Your task to perform on an android device: turn on sleep mode Image 0: 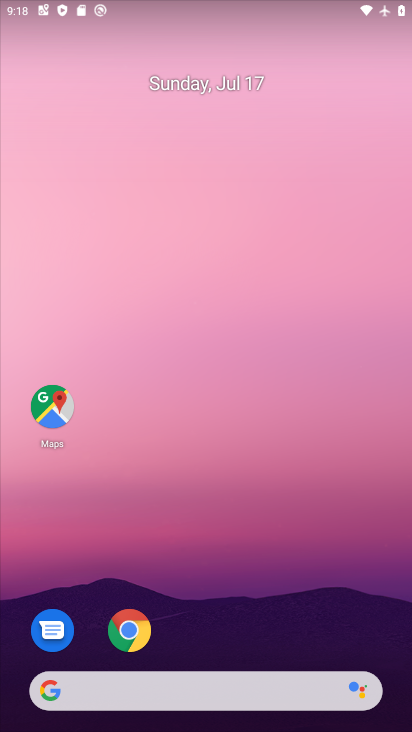
Step 0: drag from (287, 638) to (252, 164)
Your task to perform on an android device: turn on sleep mode Image 1: 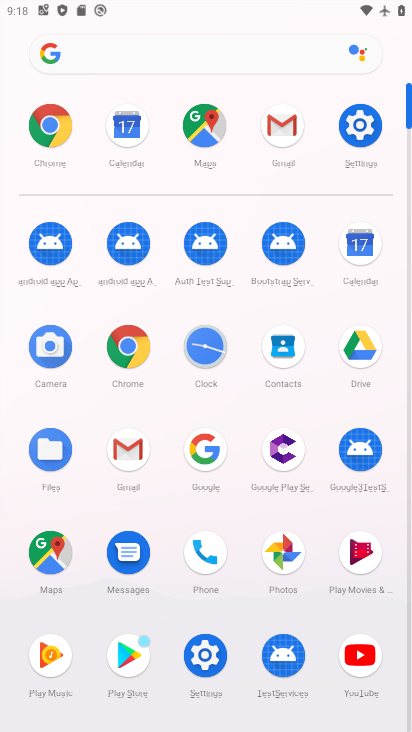
Step 1: click (209, 669)
Your task to perform on an android device: turn on sleep mode Image 2: 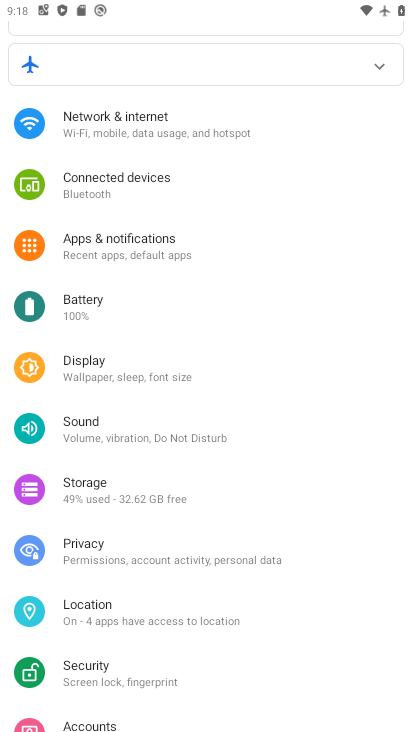
Step 2: click (203, 366)
Your task to perform on an android device: turn on sleep mode Image 3: 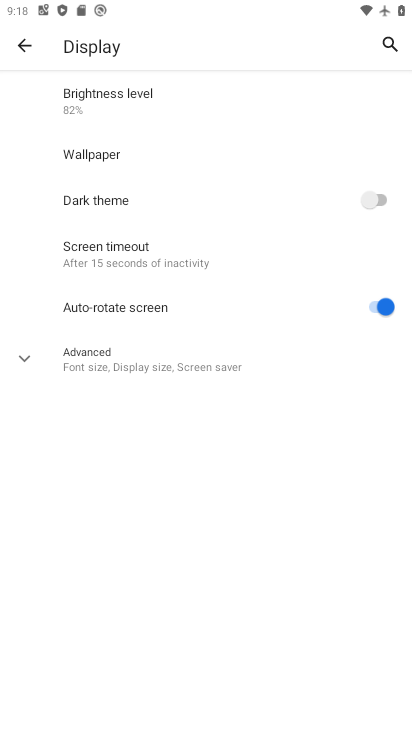
Step 3: click (174, 251)
Your task to perform on an android device: turn on sleep mode Image 4: 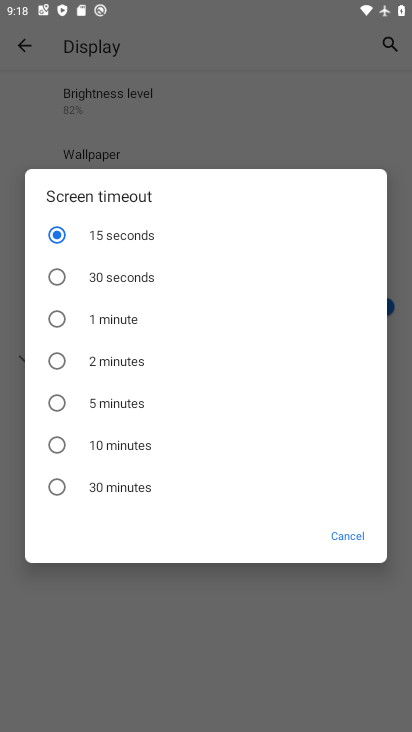
Step 4: click (145, 289)
Your task to perform on an android device: turn on sleep mode Image 5: 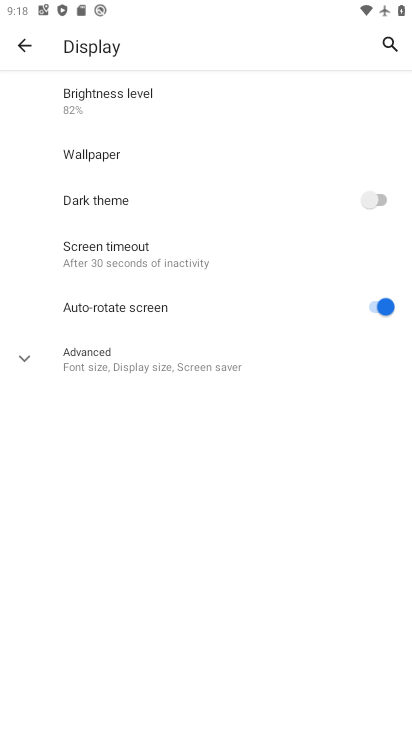
Step 5: task complete